Your task to perform on an android device: manage bookmarks in the chrome app Image 0: 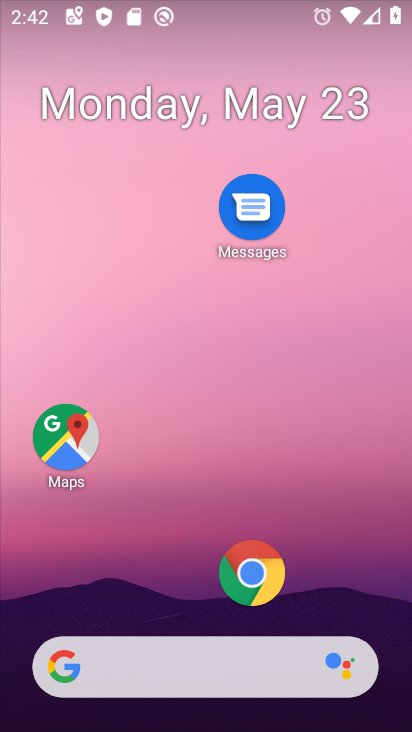
Step 0: drag from (293, 97) to (294, 8)
Your task to perform on an android device: manage bookmarks in the chrome app Image 1: 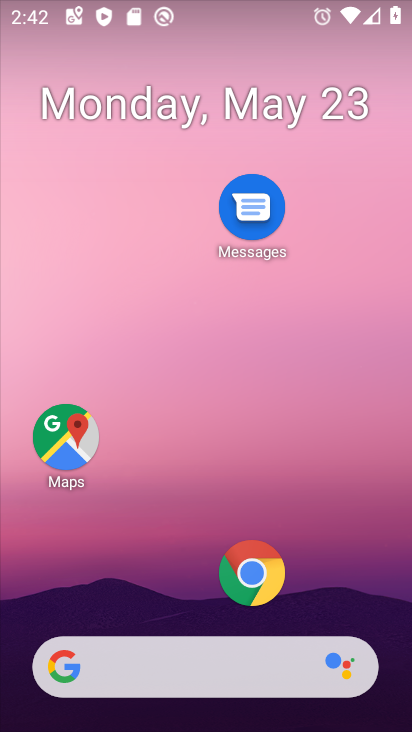
Step 1: drag from (337, 639) to (398, 1)
Your task to perform on an android device: manage bookmarks in the chrome app Image 2: 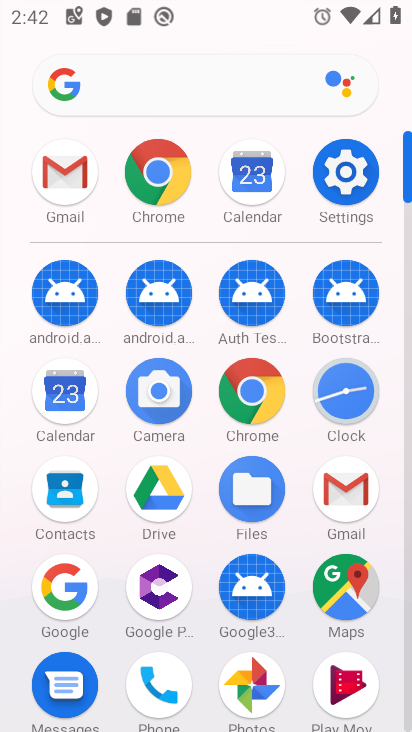
Step 2: click (259, 380)
Your task to perform on an android device: manage bookmarks in the chrome app Image 3: 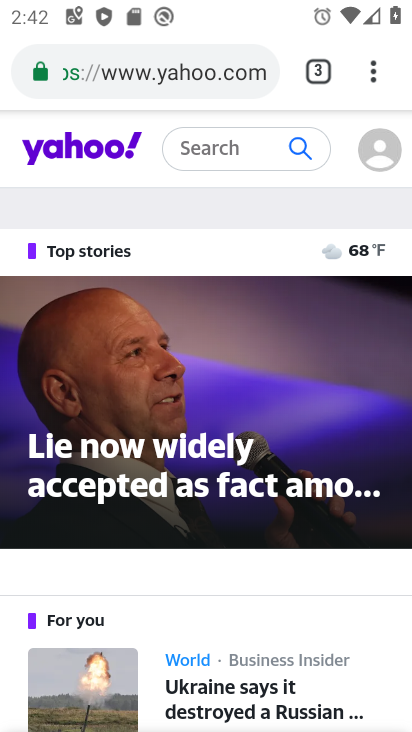
Step 3: task complete